Your task to perform on an android device: turn off javascript in the chrome app Image 0: 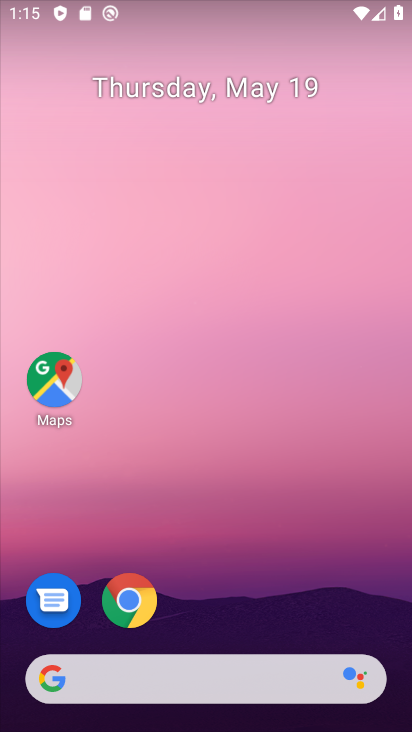
Step 0: click (143, 590)
Your task to perform on an android device: turn off javascript in the chrome app Image 1: 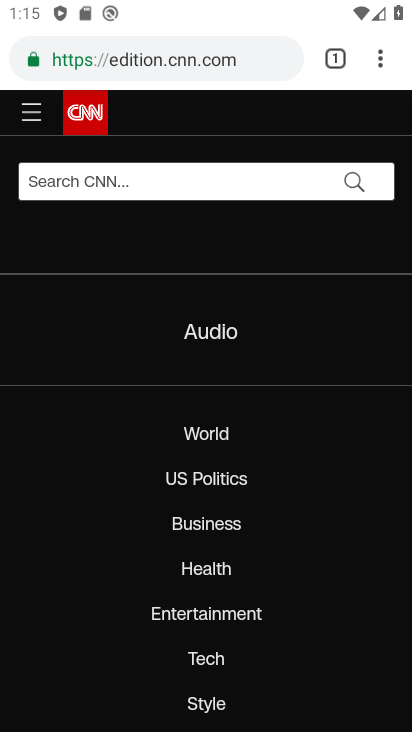
Step 1: click (385, 70)
Your task to perform on an android device: turn off javascript in the chrome app Image 2: 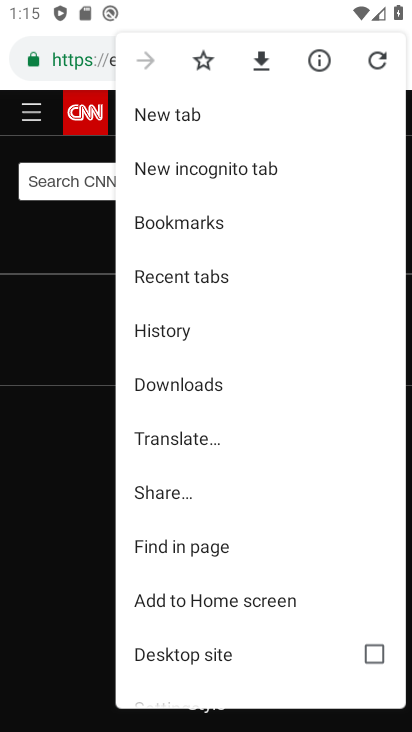
Step 2: drag from (382, 68) to (337, 351)
Your task to perform on an android device: turn off javascript in the chrome app Image 3: 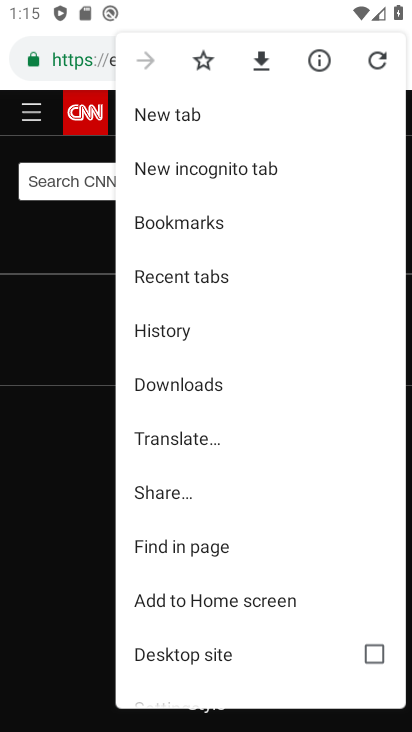
Step 3: drag from (266, 563) to (221, 345)
Your task to perform on an android device: turn off javascript in the chrome app Image 4: 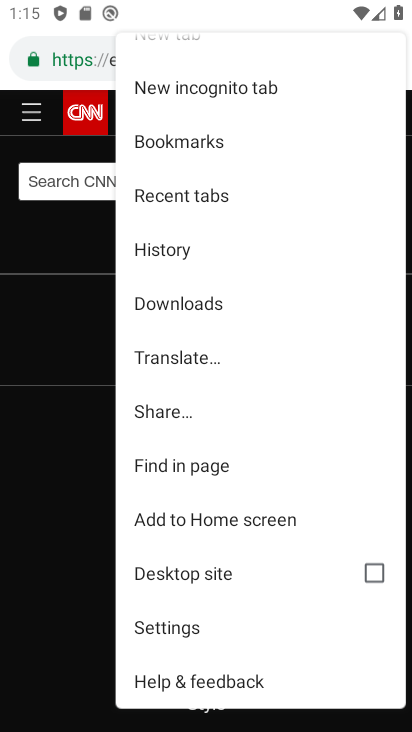
Step 4: click (209, 636)
Your task to perform on an android device: turn off javascript in the chrome app Image 5: 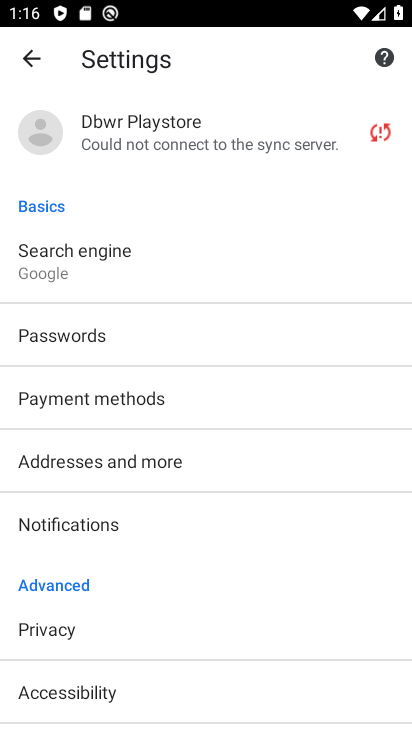
Step 5: drag from (184, 677) to (170, 387)
Your task to perform on an android device: turn off javascript in the chrome app Image 6: 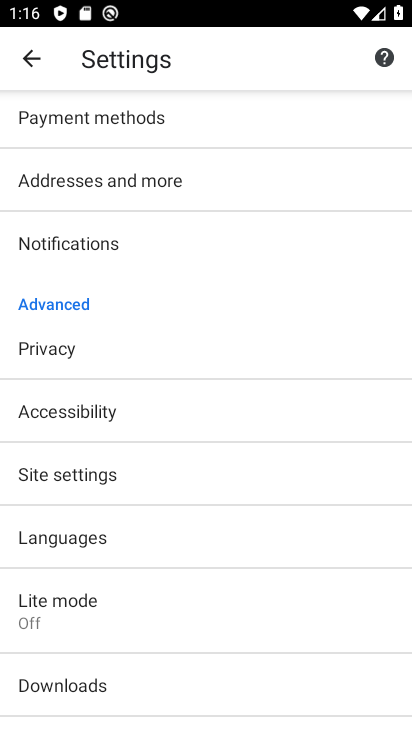
Step 6: click (103, 468)
Your task to perform on an android device: turn off javascript in the chrome app Image 7: 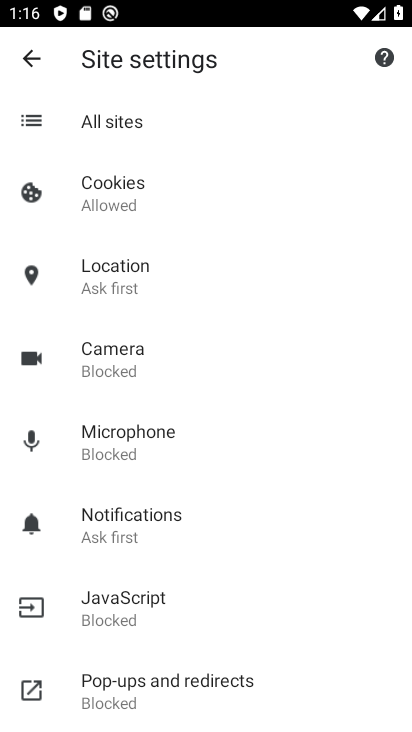
Step 7: click (155, 619)
Your task to perform on an android device: turn off javascript in the chrome app Image 8: 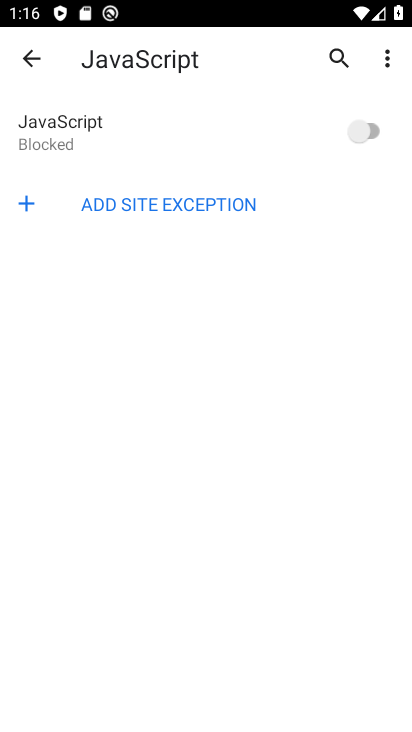
Step 8: task complete